Your task to perform on an android device: turn on priority inbox in the gmail app Image 0: 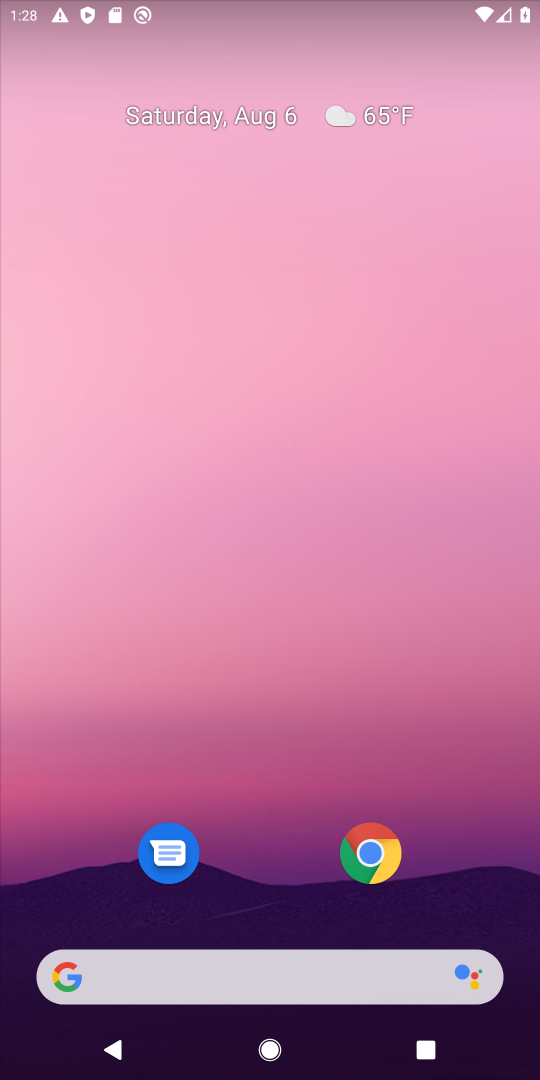
Step 0: drag from (489, 898) to (435, 165)
Your task to perform on an android device: turn on priority inbox in the gmail app Image 1: 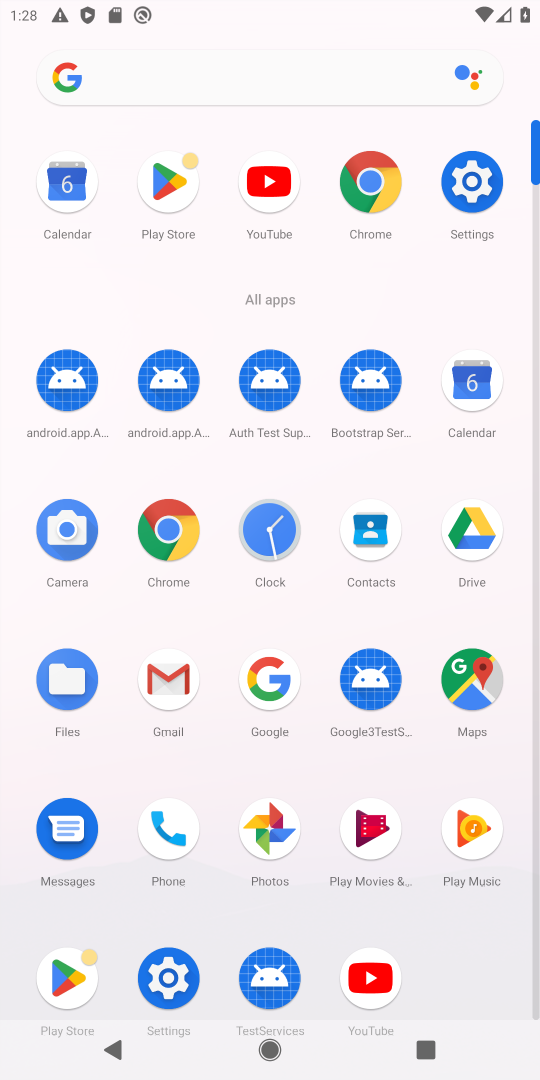
Step 1: click (168, 675)
Your task to perform on an android device: turn on priority inbox in the gmail app Image 2: 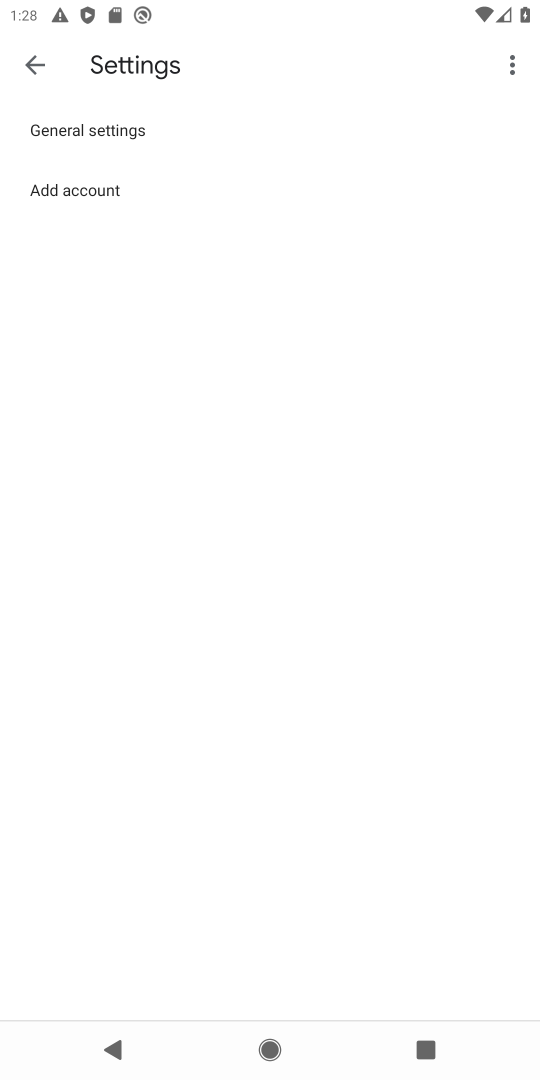
Step 2: press back button
Your task to perform on an android device: turn on priority inbox in the gmail app Image 3: 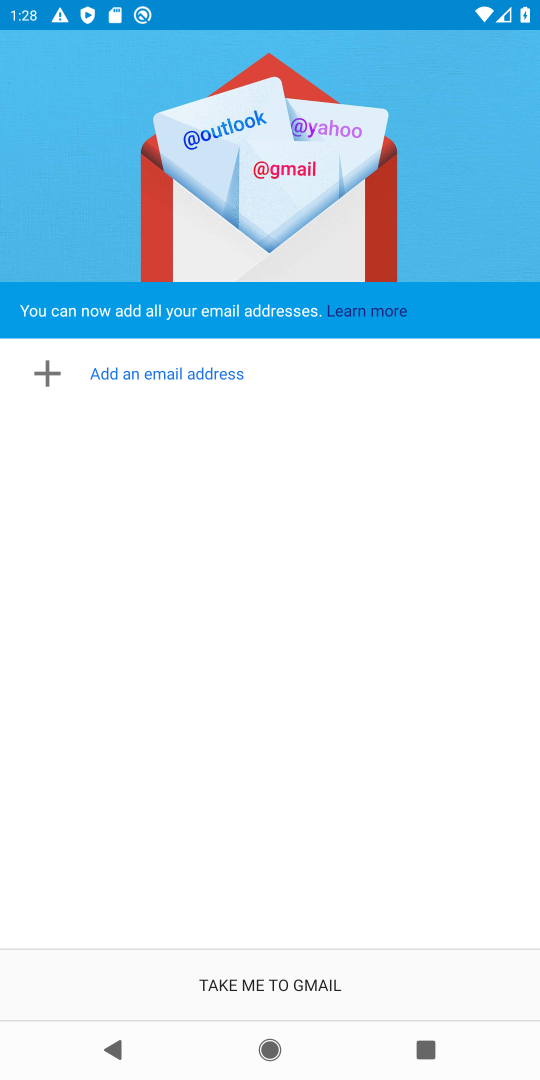
Step 3: click (277, 997)
Your task to perform on an android device: turn on priority inbox in the gmail app Image 4: 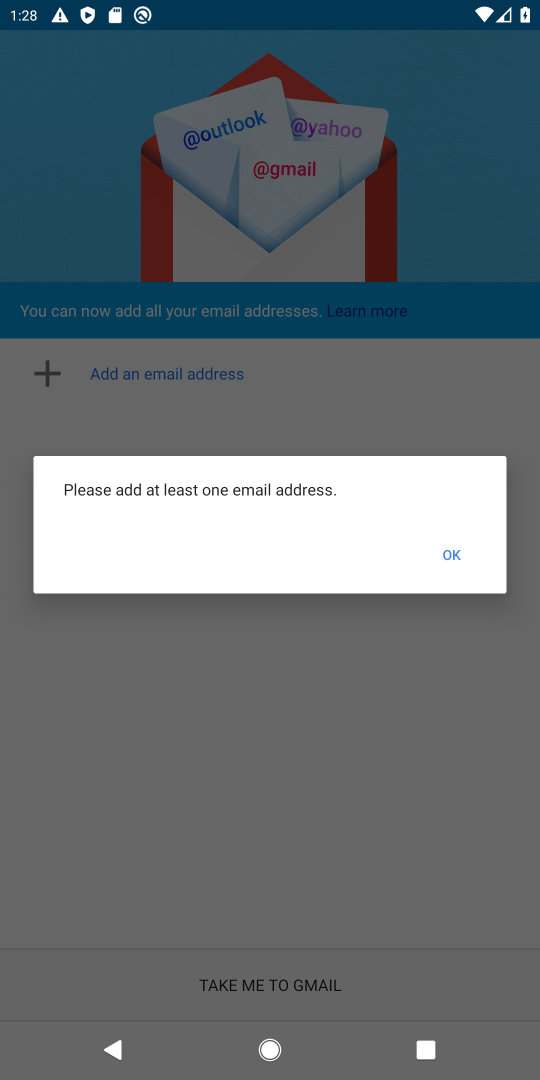
Step 4: click (467, 556)
Your task to perform on an android device: turn on priority inbox in the gmail app Image 5: 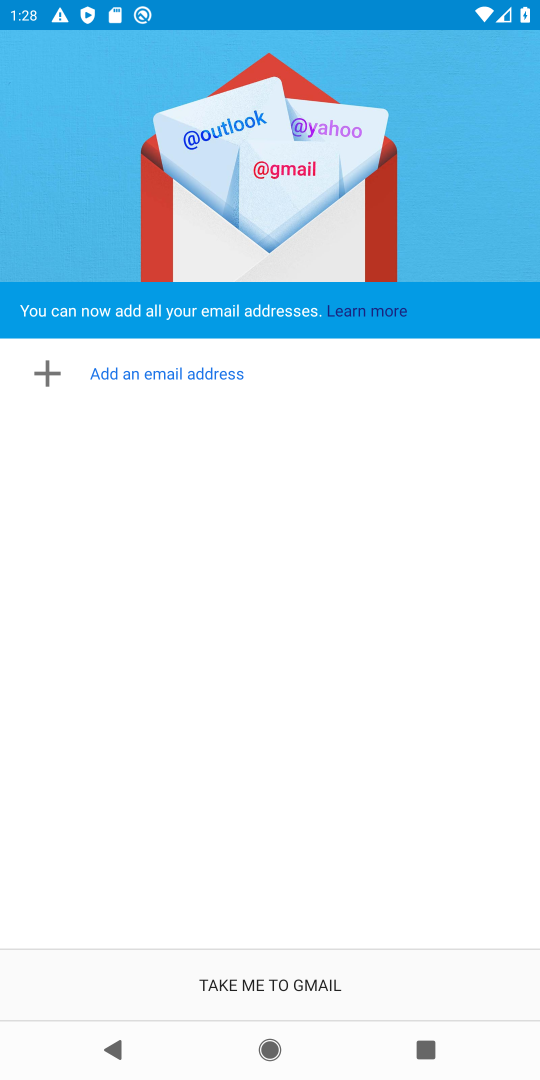
Step 5: task complete